Your task to perform on an android device: empty trash in google photos Image 0: 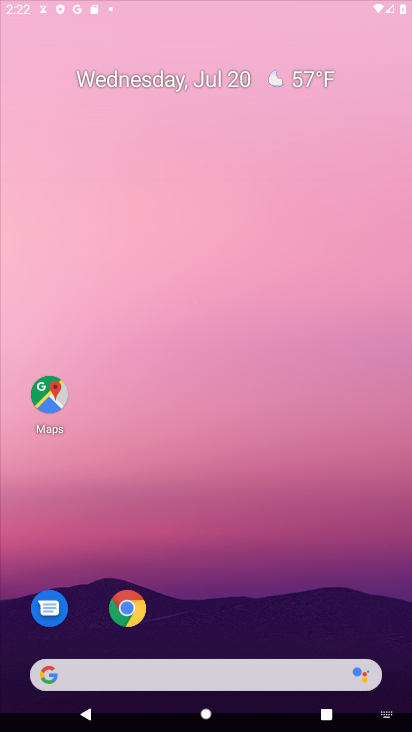
Step 0: click (119, 607)
Your task to perform on an android device: empty trash in google photos Image 1: 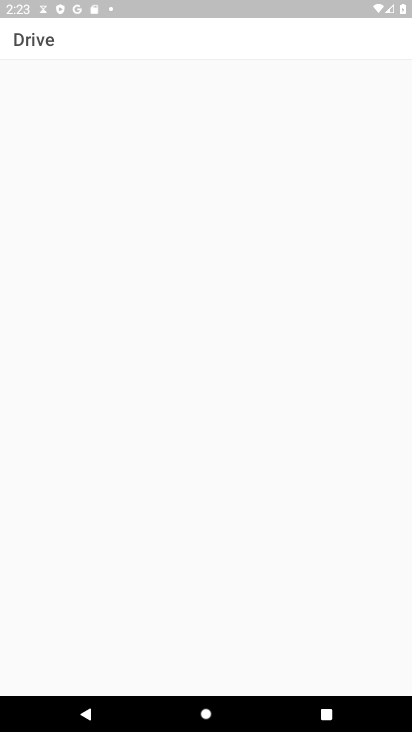
Step 1: press home button
Your task to perform on an android device: empty trash in google photos Image 2: 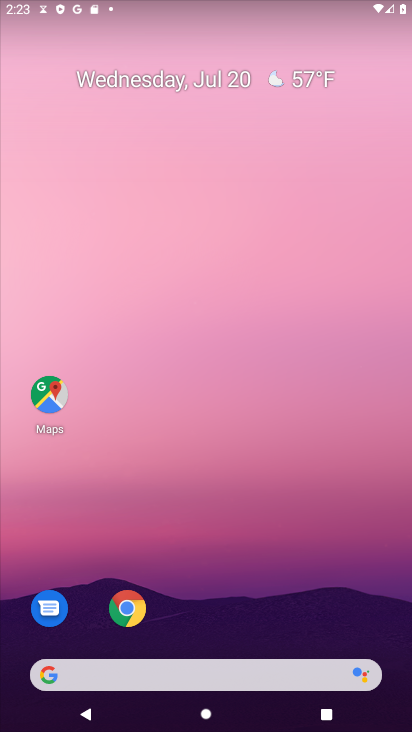
Step 2: drag from (201, 556) to (226, 110)
Your task to perform on an android device: empty trash in google photos Image 3: 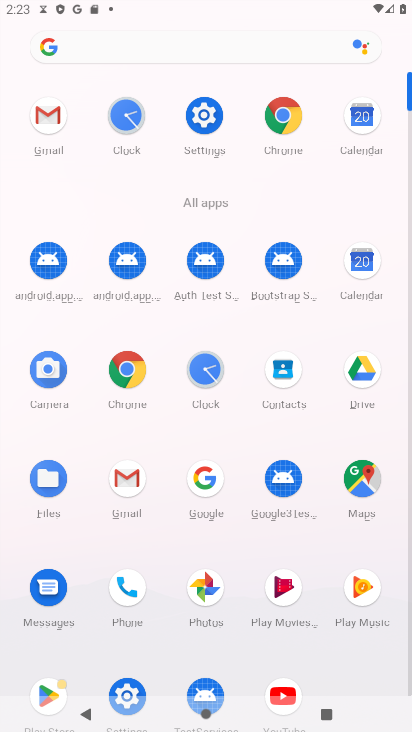
Step 3: click (209, 619)
Your task to perform on an android device: empty trash in google photos Image 4: 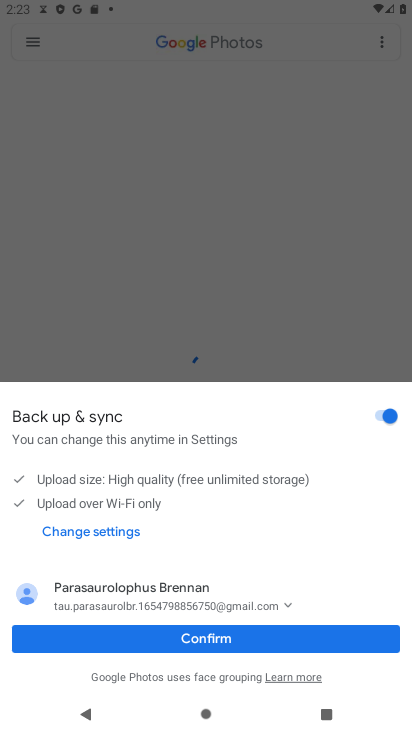
Step 4: click (200, 642)
Your task to perform on an android device: empty trash in google photos Image 5: 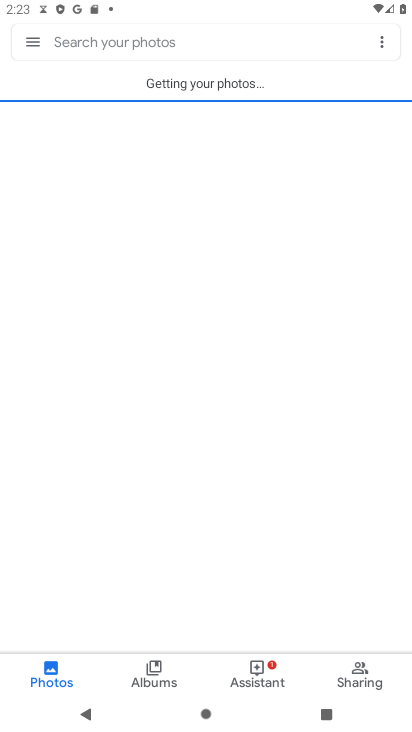
Step 5: click (34, 45)
Your task to perform on an android device: empty trash in google photos Image 6: 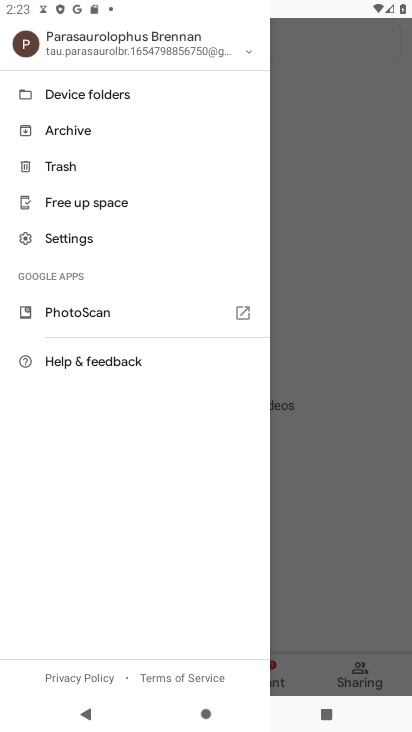
Step 6: click (41, 161)
Your task to perform on an android device: empty trash in google photos Image 7: 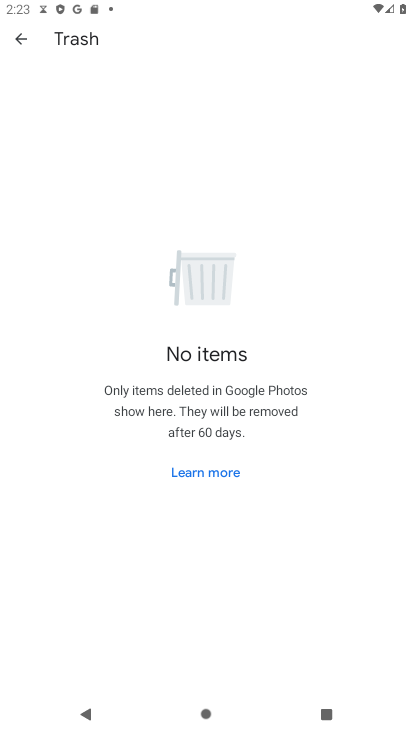
Step 7: task complete